Your task to perform on an android device: change keyboard looks Image 0: 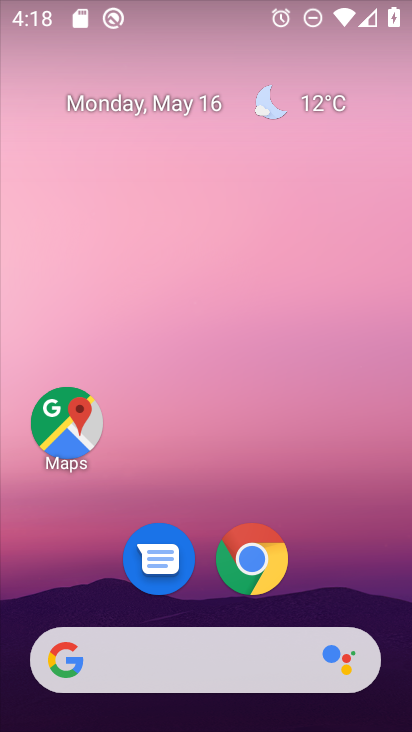
Step 0: drag from (324, 600) to (304, 124)
Your task to perform on an android device: change keyboard looks Image 1: 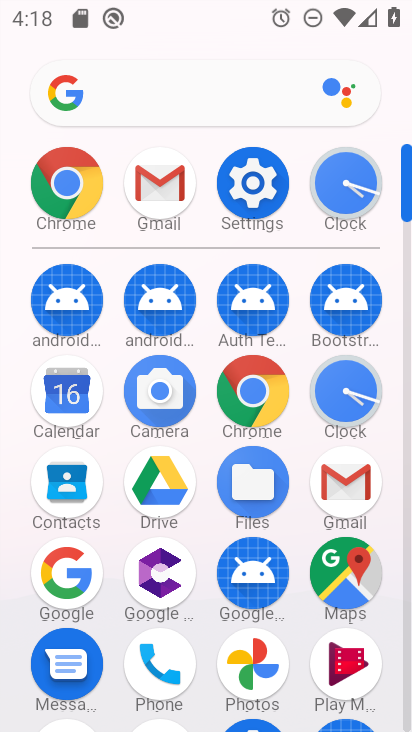
Step 1: click (223, 177)
Your task to perform on an android device: change keyboard looks Image 2: 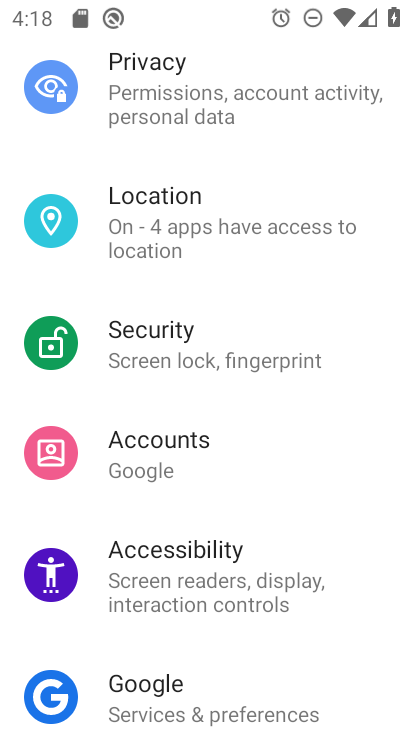
Step 2: drag from (172, 556) to (157, 197)
Your task to perform on an android device: change keyboard looks Image 3: 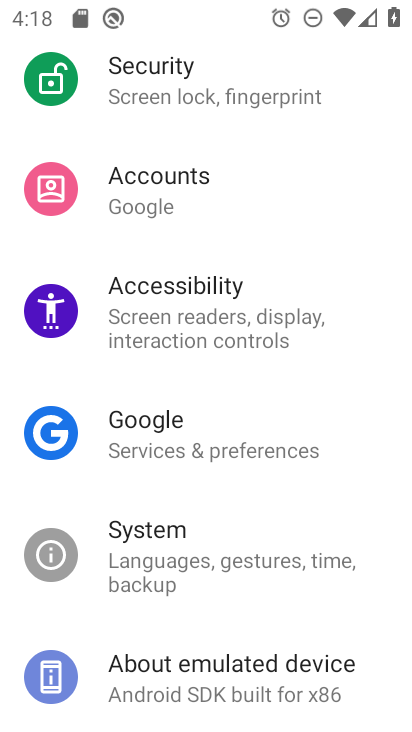
Step 3: click (150, 515)
Your task to perform on an android device: change keyboard looks Image 4: 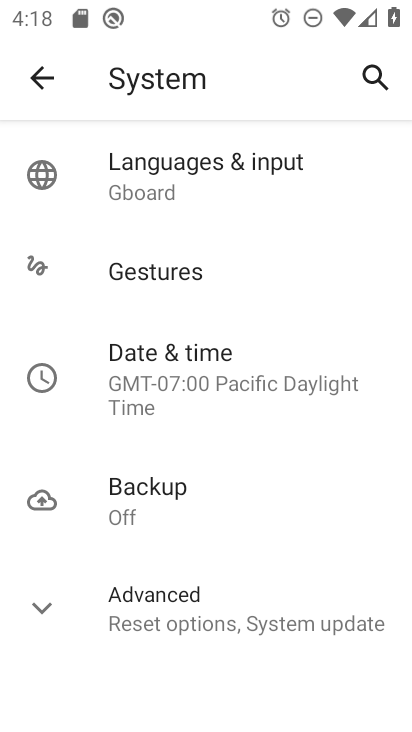
Step 4: click (150, 181)
Your task to perform on an android device: change keyboard looks Image 5: 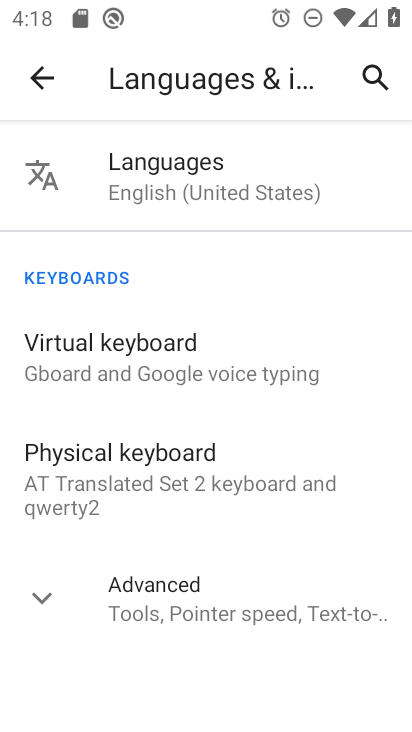
Step 5: click (128, 385)
Your task to perform on an android device: change keyboard looks Image 6: 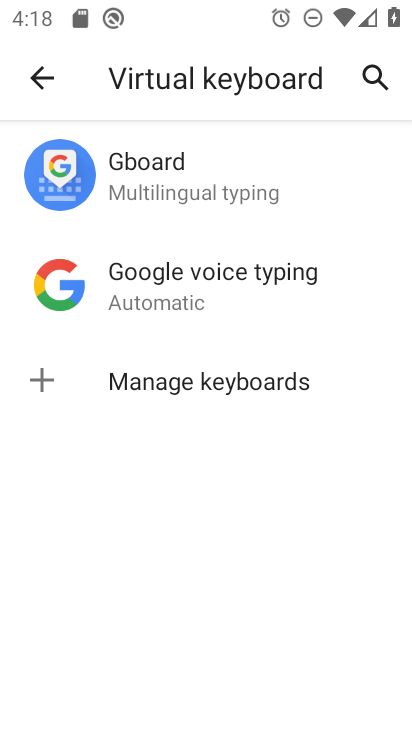
Step 6: click (176, 172)
Your task to perform on an android device: change keyboard looks Image 7: 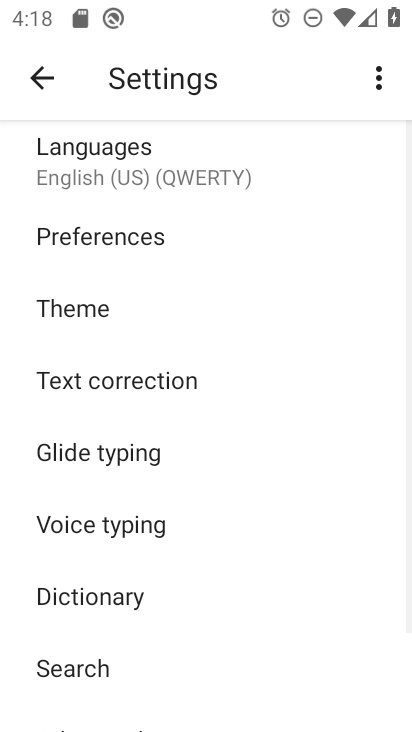
Step 7: click (126, 294)
Your task to perform on an android device: change keyboard looks Image 8: 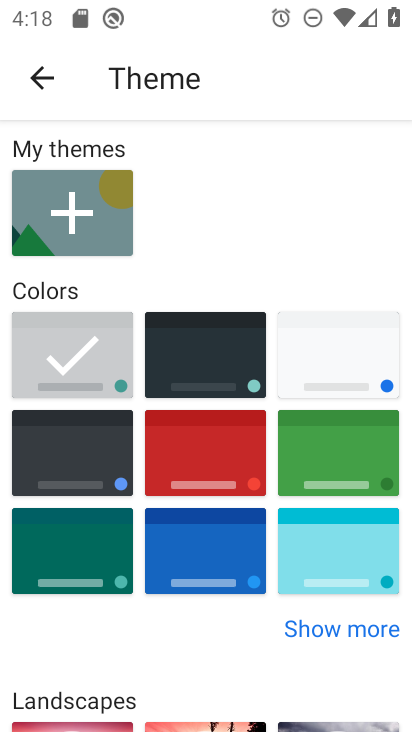
Step 8: click (189, 341)
Your task to perform on an android device: change keyboard looks Image 9: 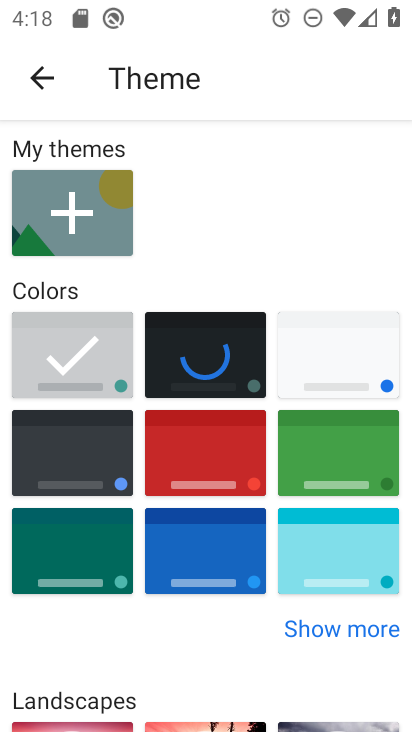
Step 9: click (189, 341)
Your task to perform on an android device: change keyboard looks Image 10: 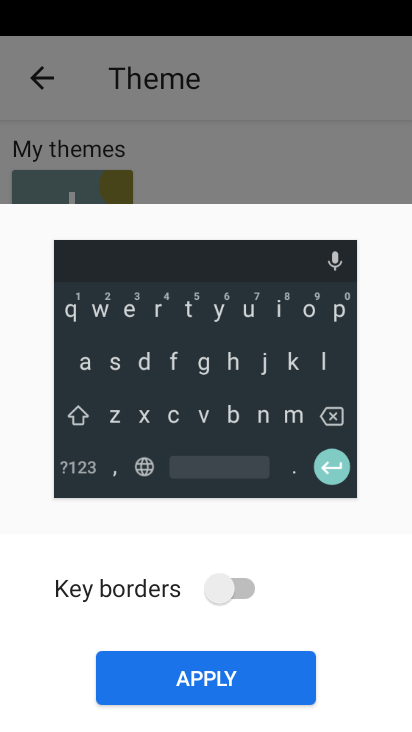
Step 10: click (227, 668)
Your task to perform on an android device: change keyboard looks Image 11: 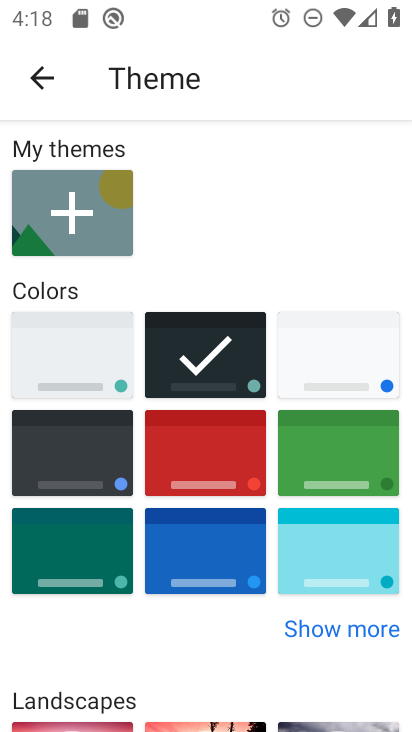
Step 11: task complete